Your task to perform on an android device: turn on javascript in the chrome app Image 0: 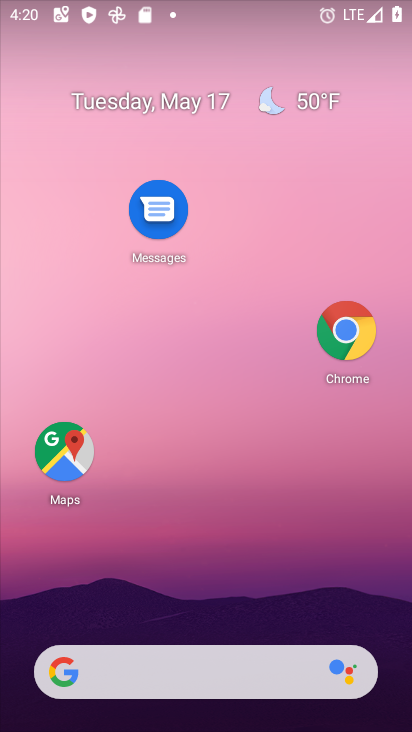
Step 0: click (331, 351)
Your task to perform on an android device: turn on javascript in the chrome app Image 1: 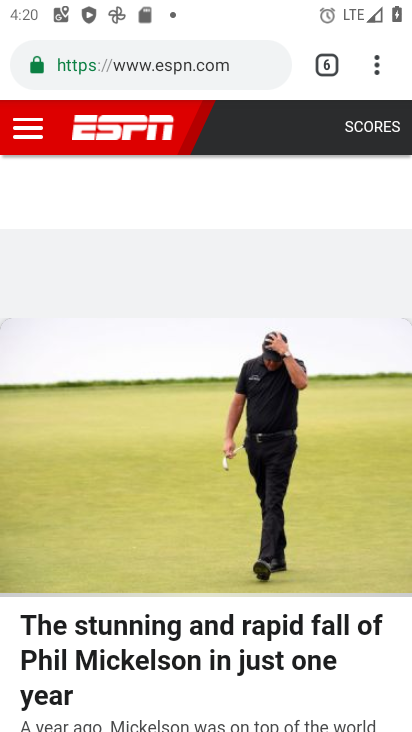
Step 1: click (372, 78)
Your task to perform on an android device: turn on javascript in the chrome app Image 2: 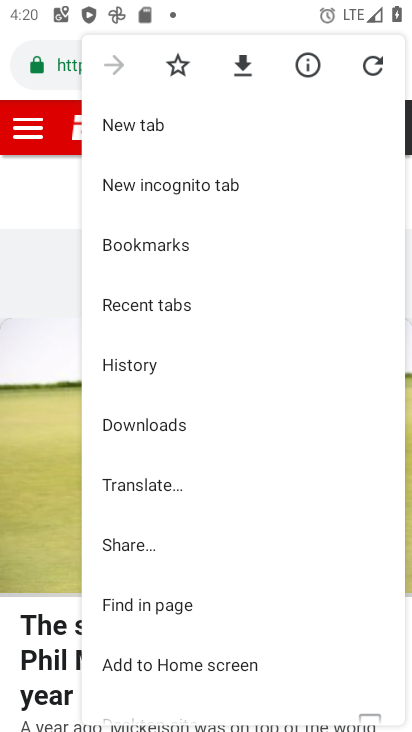
Step 2: drag from (239, 488) to (192, 113)
Your task to perform on an android device: turn on javascript in the chrome app Image 3: 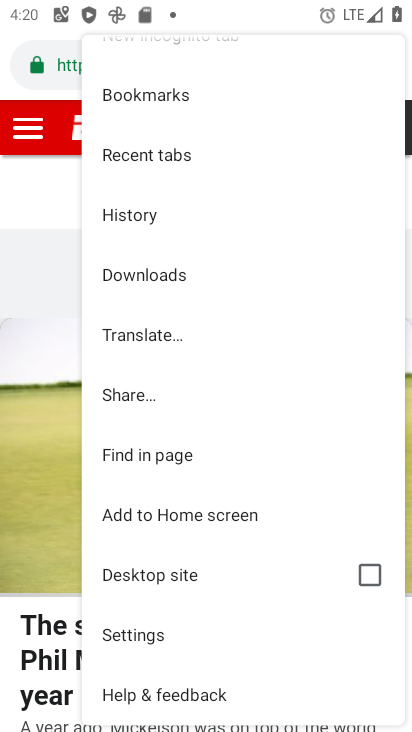
Step 3: click (193, 631)
Your task to perform on an android device: turn on javascript in the chrome app Image 4: 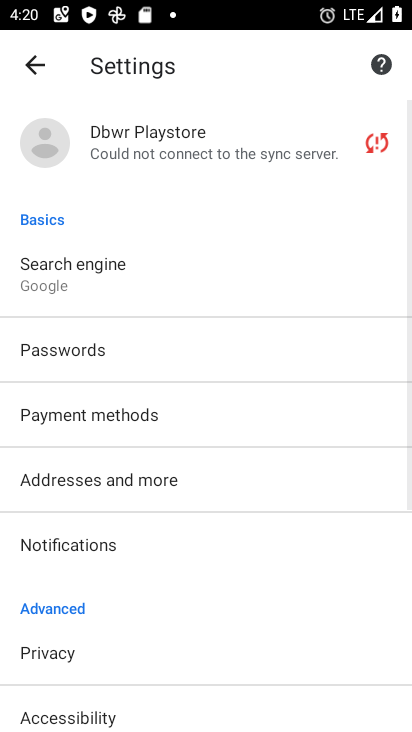
Step 4: drag from (157, 530) to (128, 232)
Your task to perform on an android device: turn on javascript in the chrome app Image 5: 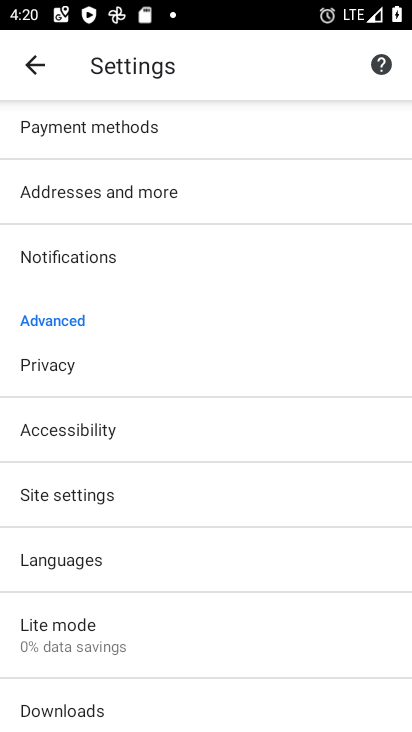
Step 5: click (145, 505)
Your task to perform on an android device: turn on javascript in the chrome app Image 6: 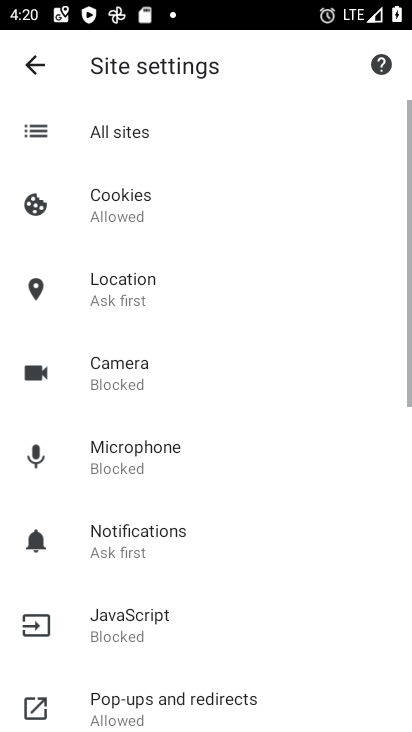
Step 6: click (167, 641)
Your task to perform on an android device: turn on javascript in the chrome app Image 7: 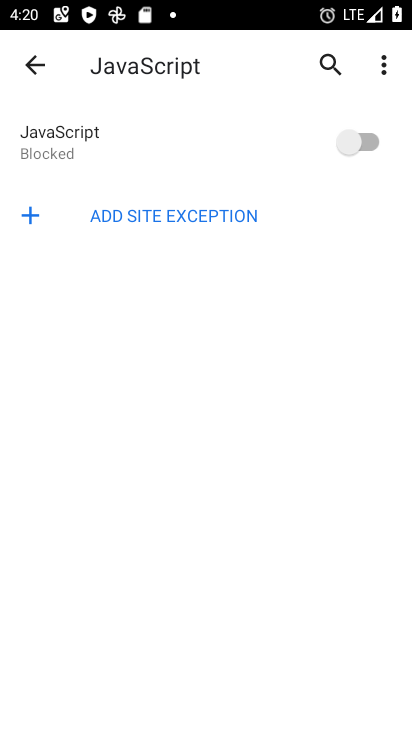
Step 7: click (338, 141)
Your task to perform on an android device: turn on javascript in the chrome app Image 8: 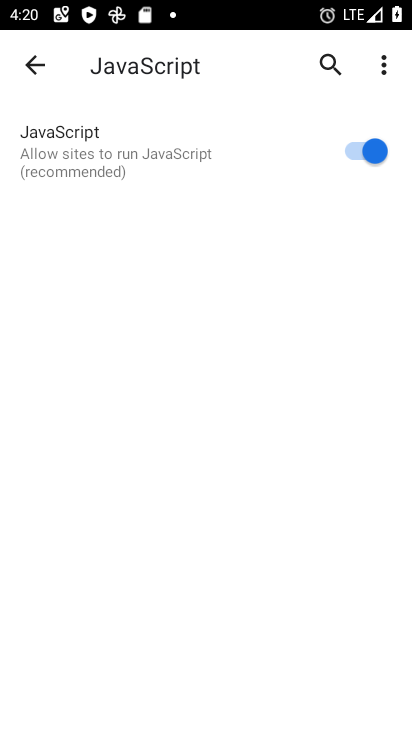
Step 8: task complete